Your task to perform on an android device: What is the recent news? Image 0: 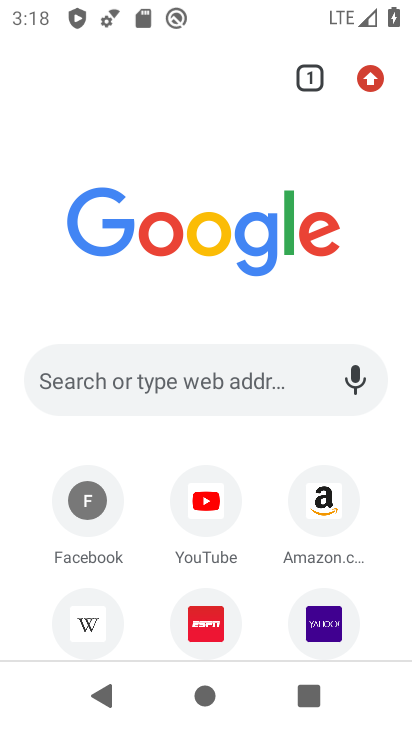
Step 0: click (183, 390)
Your task to perform on an android device: What is the recent news? Image 1: 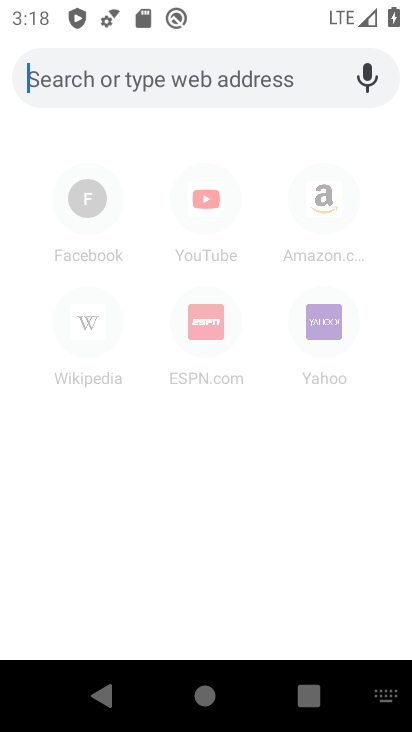
Step 1: type "recent news"
Your task to perform on an android device: What is the recent news? Image 2: 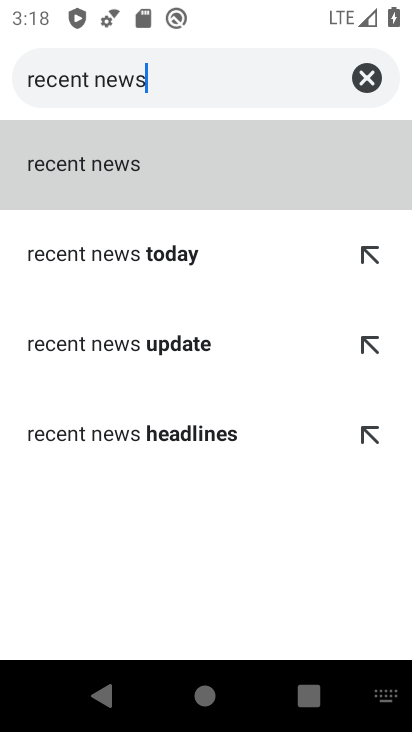
Step 2: click (119, 249)
Your task to perform on an android device: What is the recent news? Image 3: 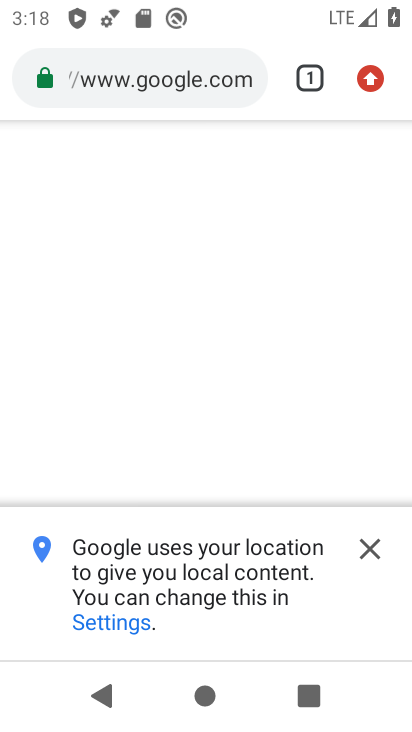
Step 3: click (373, 552)
Your task to perform on an android device: What is the recent news? Image 4: 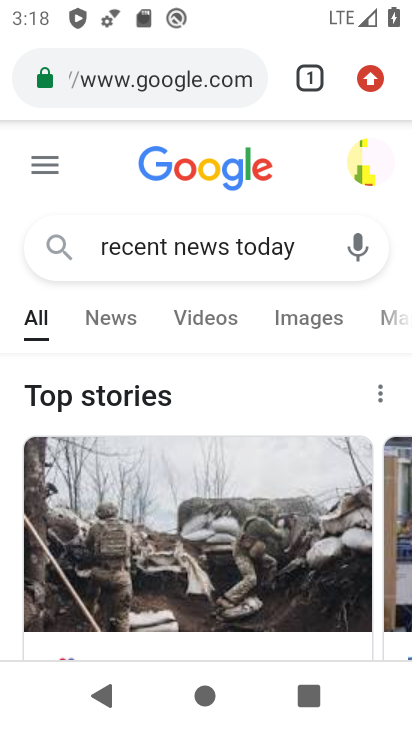
Step 4: drag from (181, 576) to (255, 384)
Your task to perform on an android device: What is the recent news? Image 5: 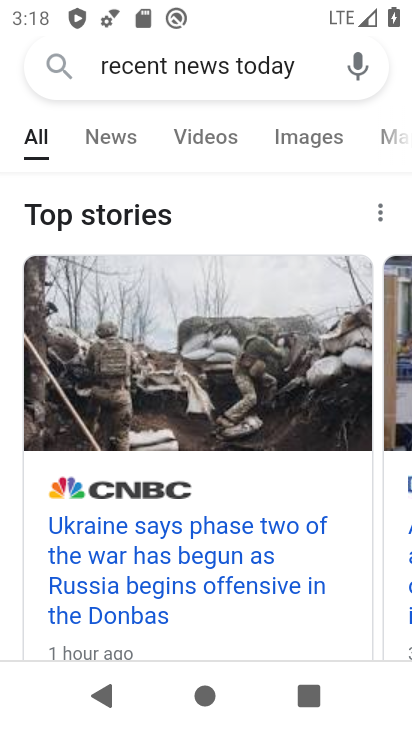
Step 5: drag from (223, 566) to (248, 421)
Your task to perform on an android device: What is the recent news? Image 6: 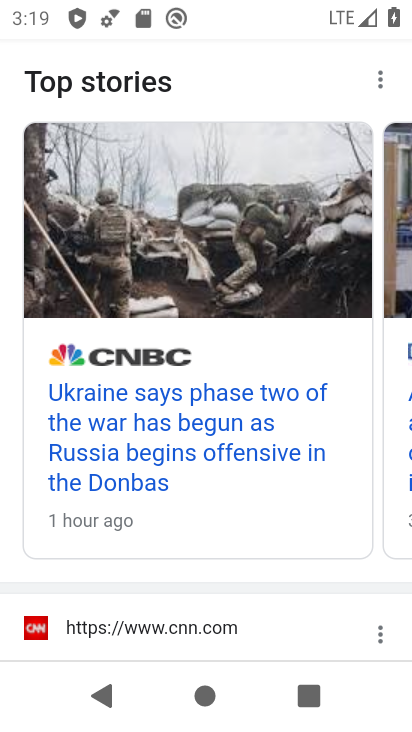
Step 6: click (230, 369)
Your task to perform on an android device: What is the recent news? Image 7: 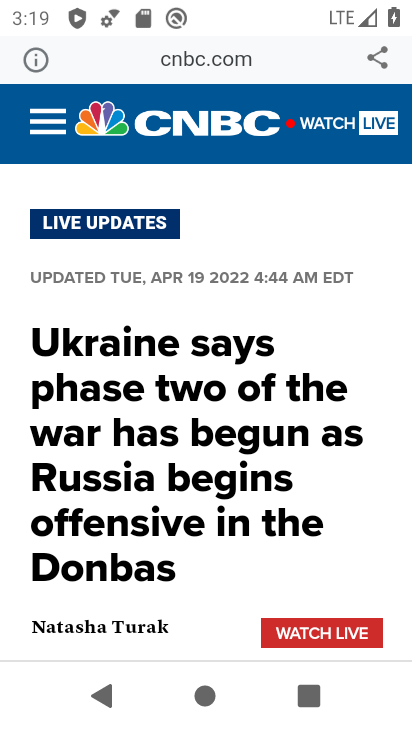
Step 7: task complete